Your task to perform on an android device: Go to Yahoo.com Image 0: 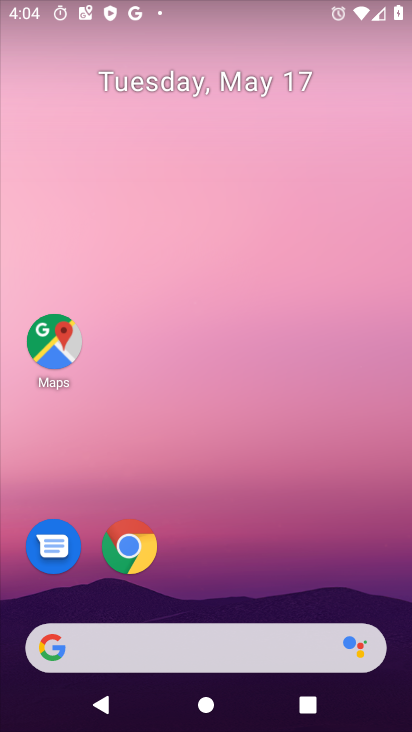
Step 0: click (123, 546)
Your task to perform on an android device: Go to Yahoo.com Image 1: 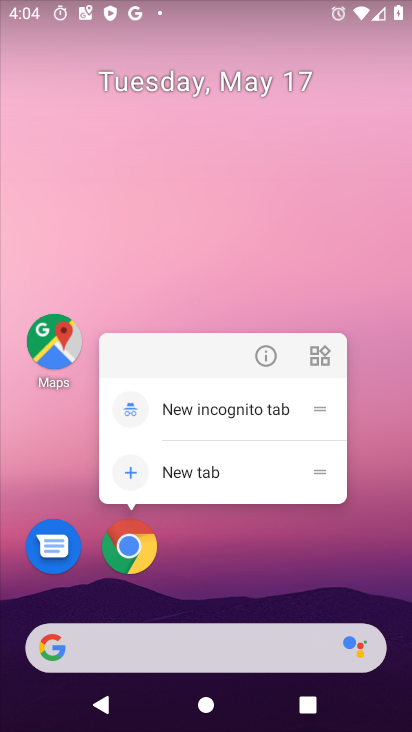
Step 1: click (132, 541)
Your task to perform on an android device: Go to Yahoo.com Image 2: 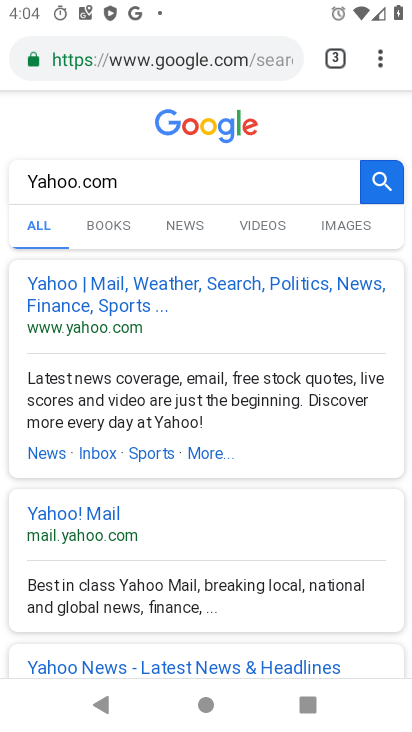
Step 2: click (165, 190)
Your task to perform on an android device: Go to Yahoo.com Image 3: 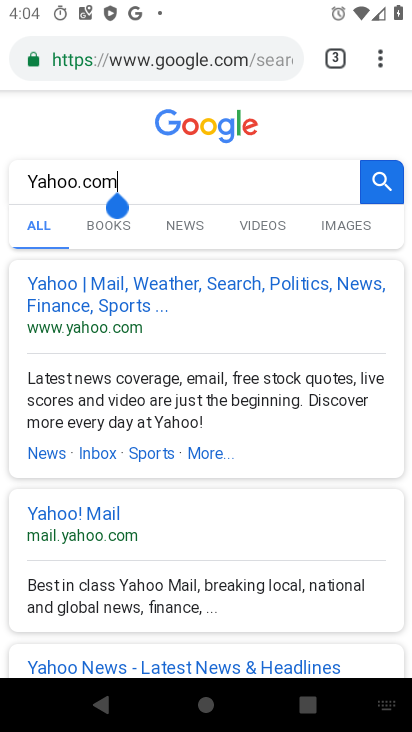
Step 3: task complete